Your task to perform on an android device: Open the calendar app, open the side menu, and click the "Day" option Image 0: 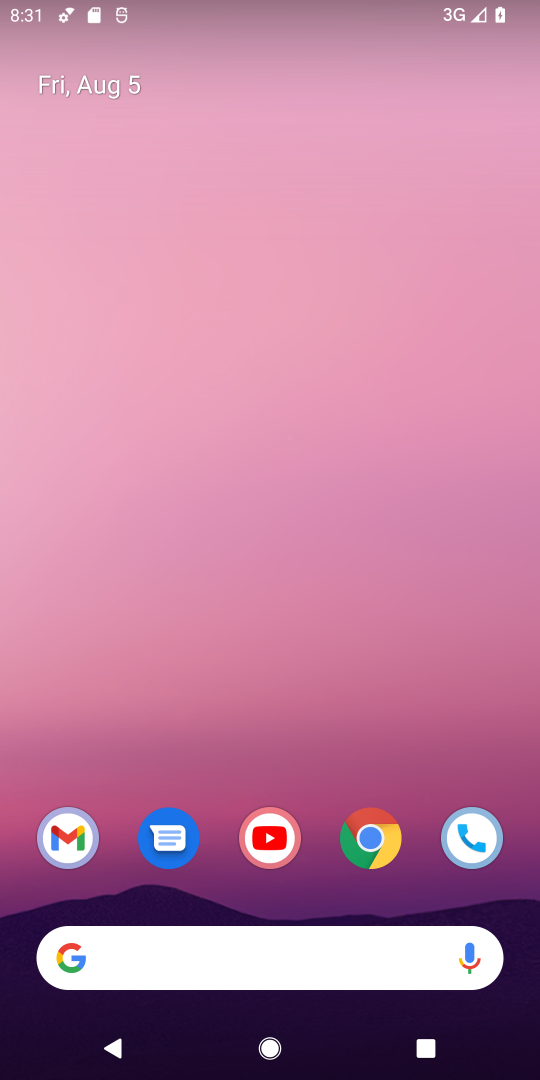
Step 0: drag from (231, 794) to (213, 163)
Your task to perform on an android device: Open the calendar app, open the side menu, and click the "Day" option Image 1: 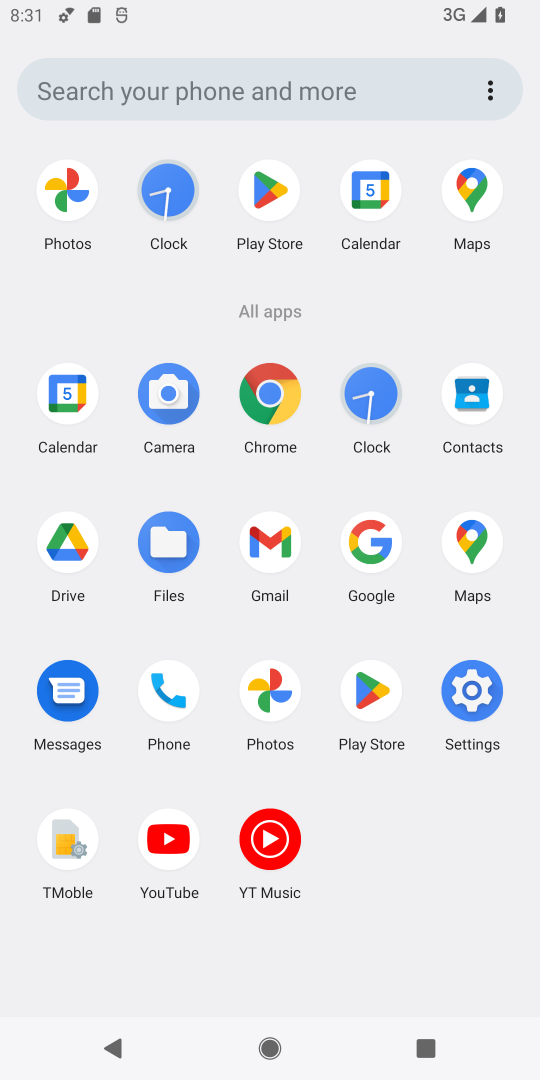
Step 1: click (70, 398)
Your task to perform on an android device: Open the calendar app, open the side menu, and click the "Day" option Image 2: 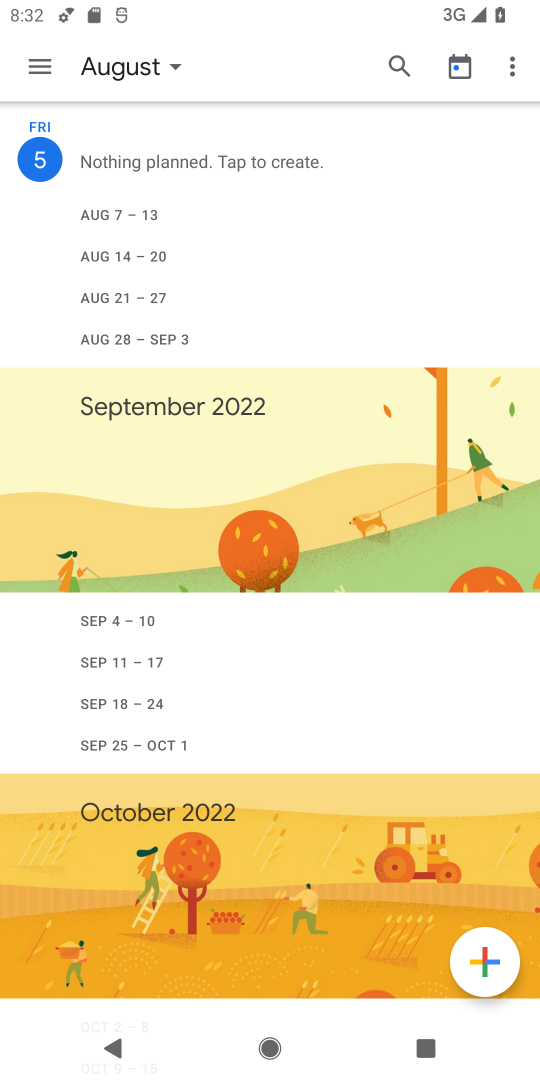
Step 2: click (26, 65)
Your task to perform on an android device: Open the calendar app, open the side menu, and click the "Day" option Image 3: 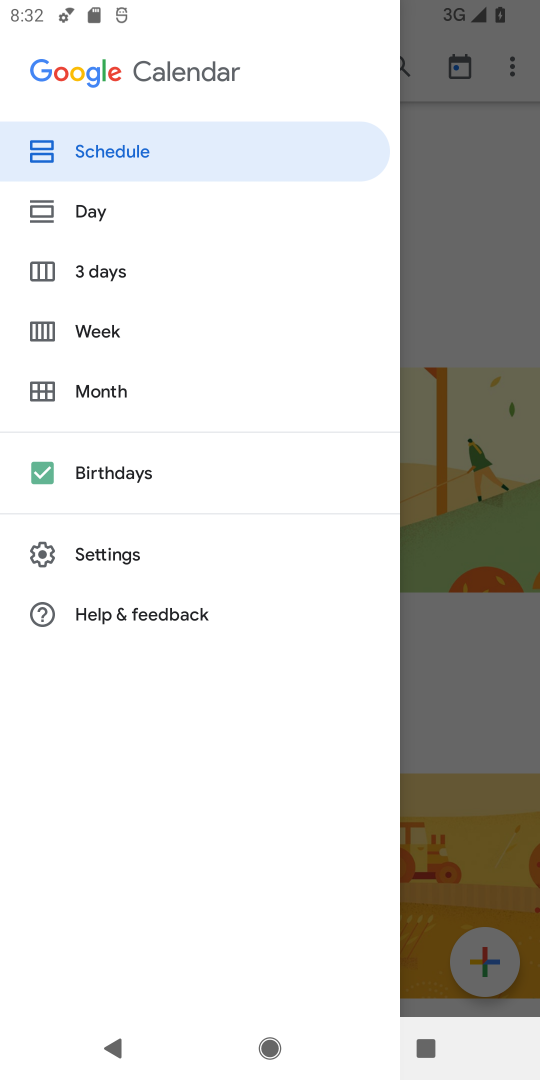
Step 3: click (61, 204)
Your task to perform on an android device: Open the calendar app, open the side menu, and click the "Day" option Image 4: 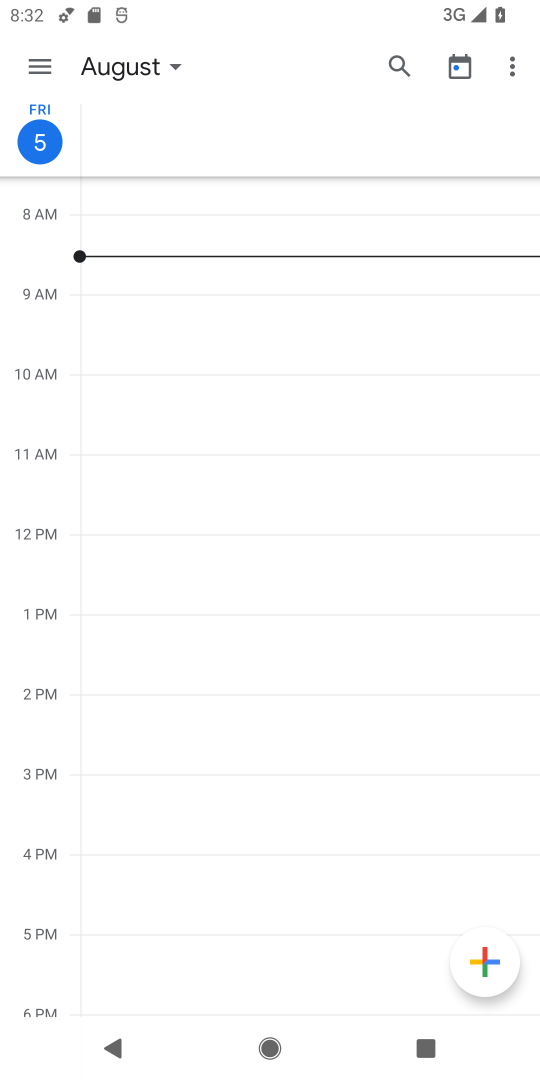
Step 4: task complete